Your task to perform on an android device: Open the calendar app, open the side menu, and click the "Day" option Image 0: 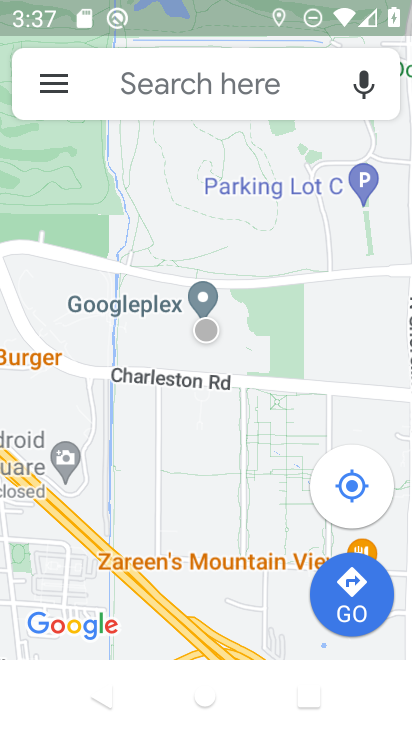
Step 0: press home button
Your task to perform on an android device: Open the calendar app, open the side menu, and click the "Day" option Image 1: 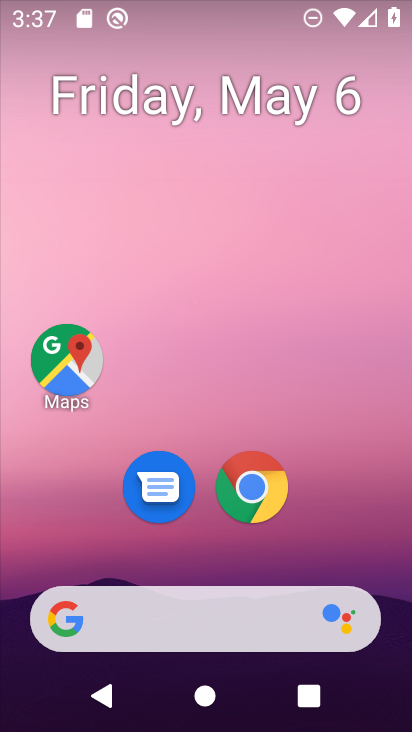
Step 1: drag from (325, 541) to (383, 59)
Your task to perform on an android device: Open the calendar app, open the side menu, and click the "Day" option Image 2: 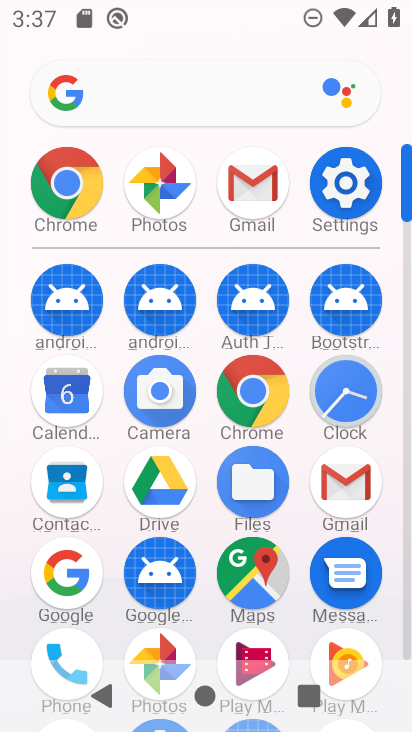
Step 2: click (74, 396)
Your task to perform on an android device: Open the calendar app, open the side menu, and click the "Day" option Image 3: 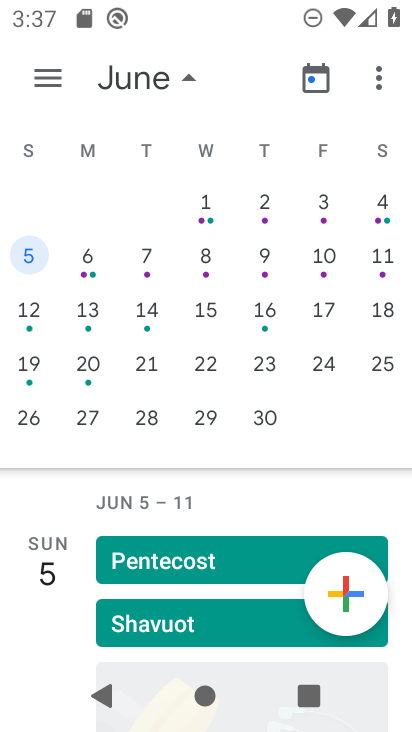
Step 3: click (50, 93)
Your task to perform on an android device: Open the calendar app, open the side menu, and click the "Day" option Image 4: 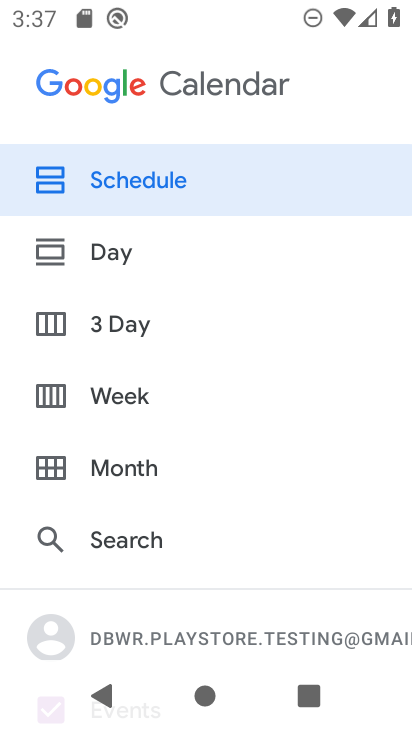
Step 4: click (148, 253)
Your task to perform on an android device: Open the calendar app, open the side menu, and click the "Day" option Image 5: 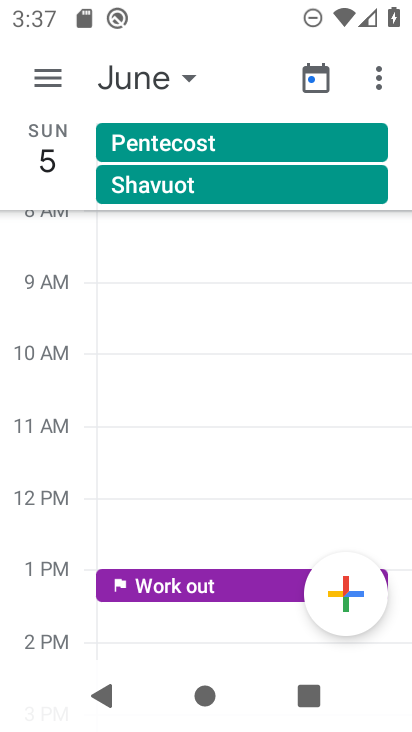
Step 5: task complete